Your task to perform on an android device: Clear the shopping cart on costco.com. Search for "razer blackwidow" on costco.com, select the first entry, and add it to the cart. Image 0: 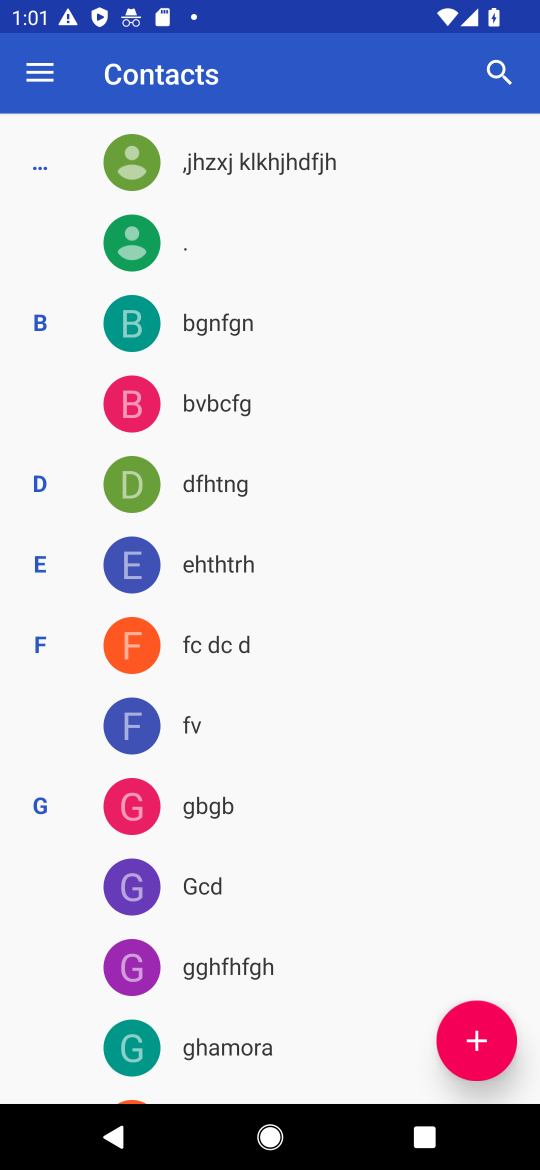
Step 0: press home button
Your task to perform on an android device: Clear the shopping cart on costco.com. Search for "razer blackwidow" on costco.com, select the first entry, and add it to the cart. Image 1: 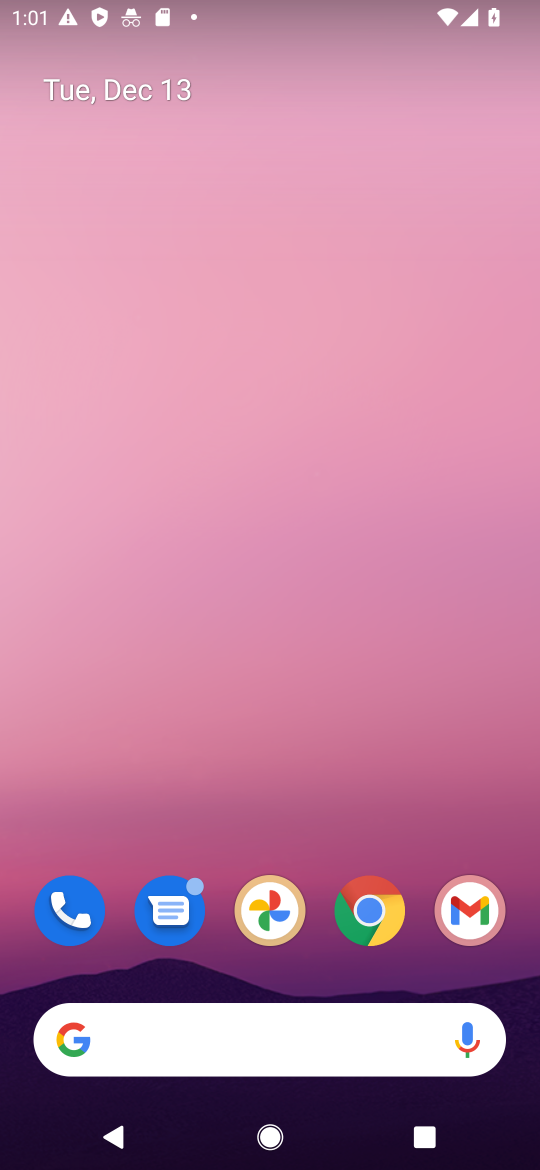
Step 1: click (340, 921)
Your task to perform on an android device: Clear the shopping cart on costco.com. Search for "razer blackwidow" on costco.com, select the first entry, and add it to the cart. Image 2: 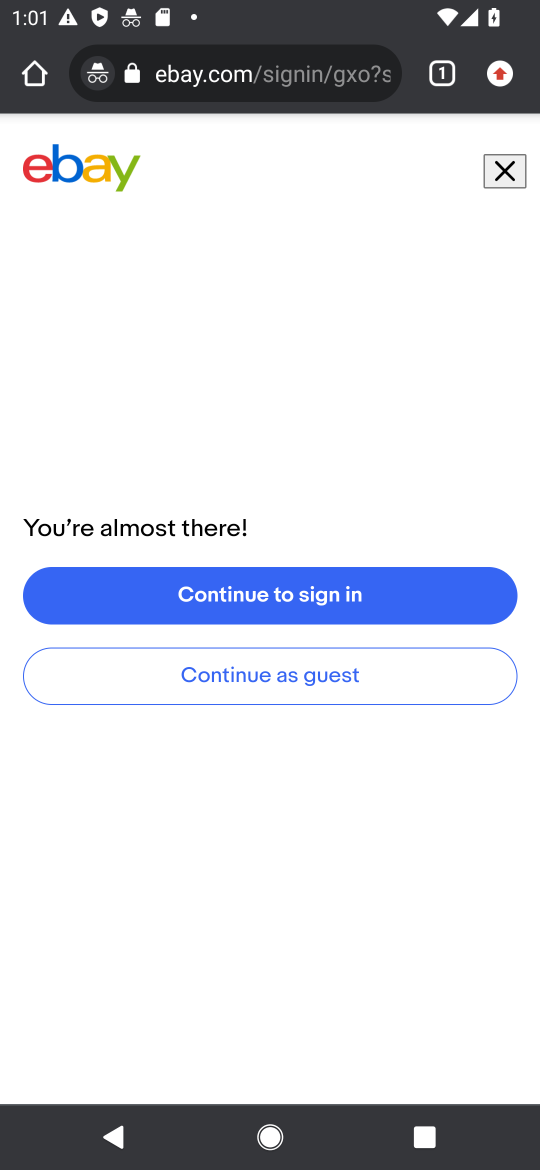
Step 2: click (259, 70)
Your task to perform on an android device: Clear the shopping cart on costco.com. Search for "razer blackwidow" on costco.com, select the first entry, and add it to the cart. Image 3: 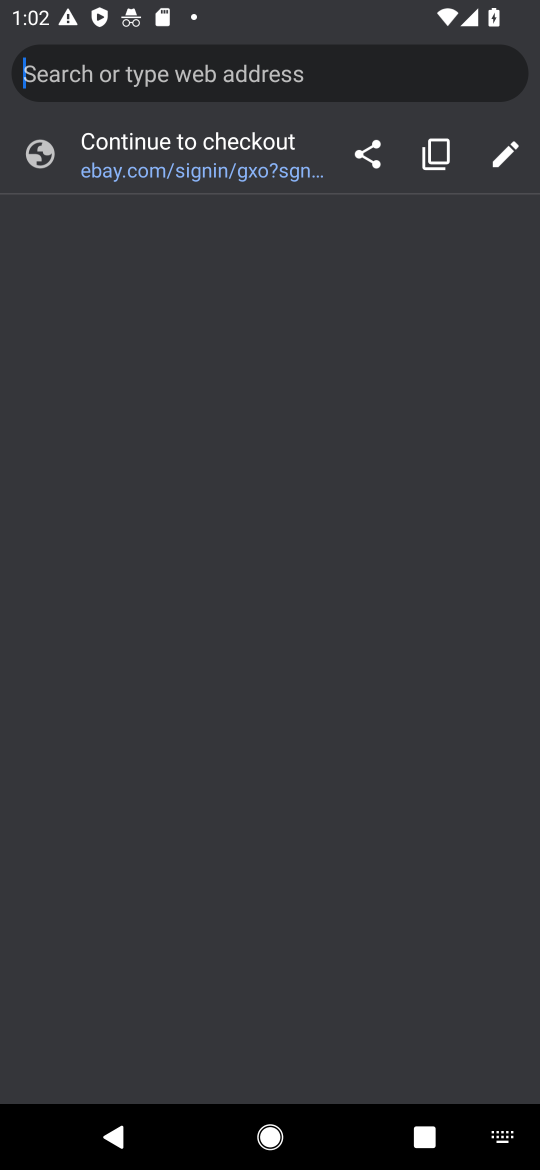
Step 3: type "COSTCO"
Your task to perform on an android device: Clear the shopping cart on costco.com. Search for "razer blackwidow" on costco.com, select the first entry, and add it to the cart. Image 4: 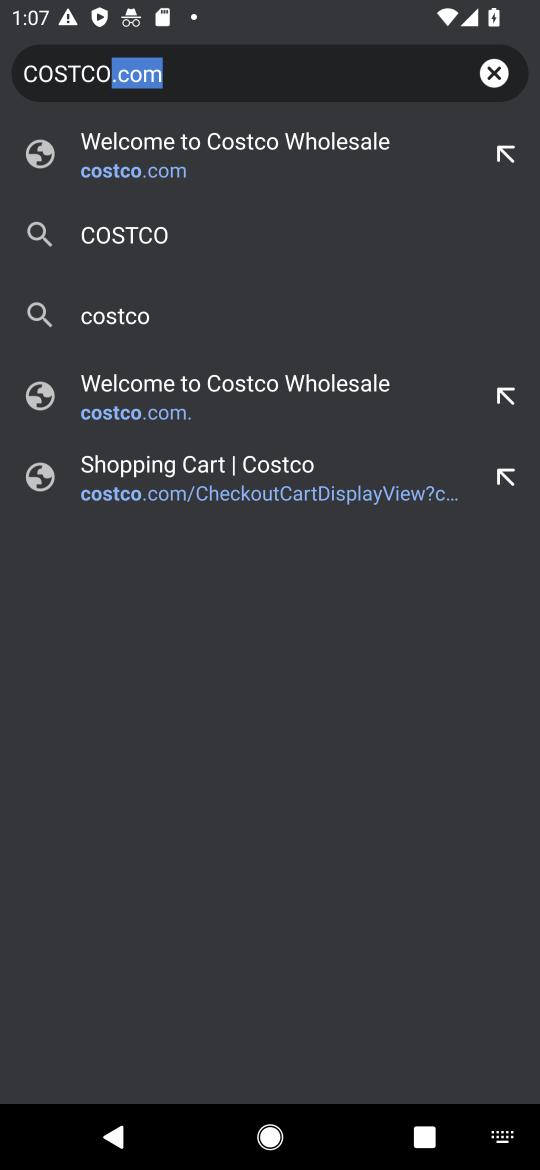
Step 4: task complete